Your task to perform on an android device: What is the recent news? Image 0: 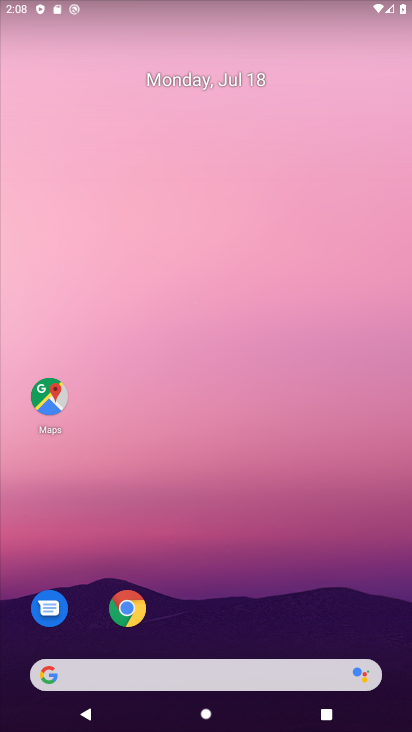
Step 0: click (156, 674)
Your task to perform on an android device: What is the recent news? Image 1: 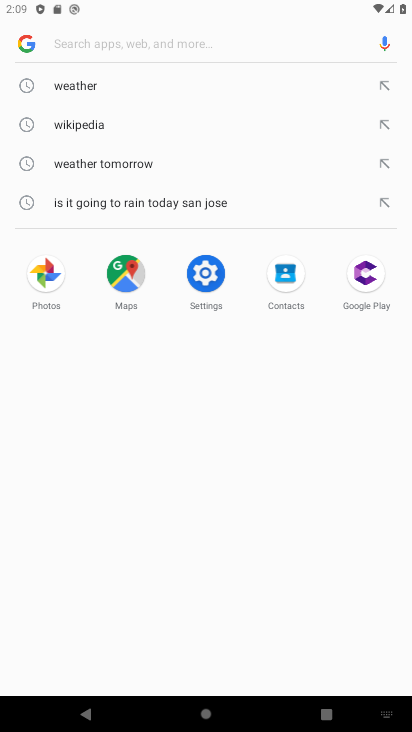
Step 1: type "what is the recent news?"
Your task to perform on an android device: What is the recent news? Image 2: 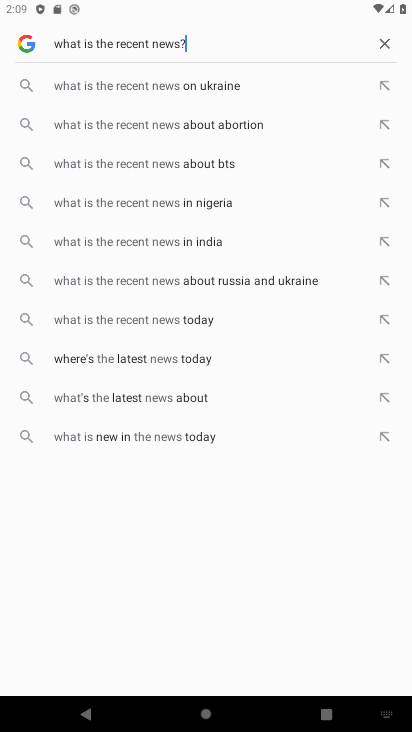
Step 2: click (169, 331)
Your task to perform on an android device: What is the recent news? Image 3: 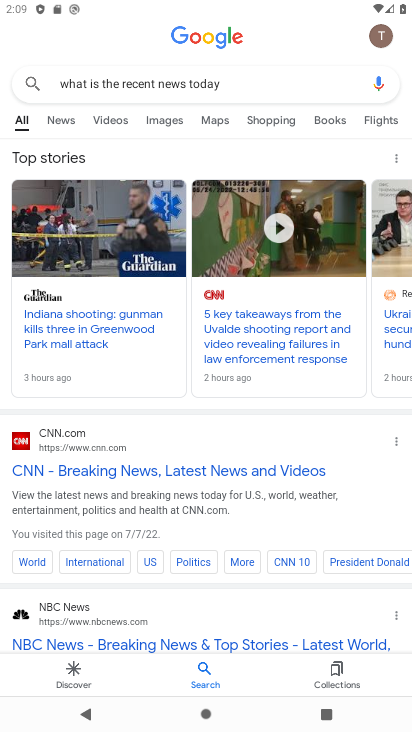
Step 3: click (53, 114)
Your task to perform on an android device: What is the recent news? Image 4: 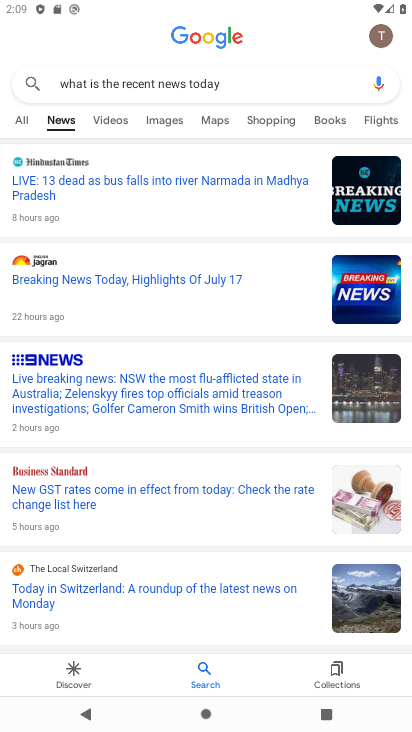
Step 4: task complete